Your task to perform on an android device: Is it going to rain tomorrow? Image 0: 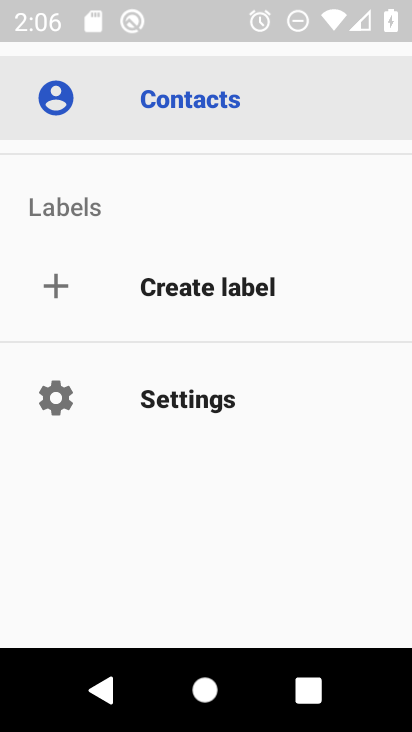
Step 0: press home button
Your task to perform on an android device: Is it going to rain tomorrow? Image 1: 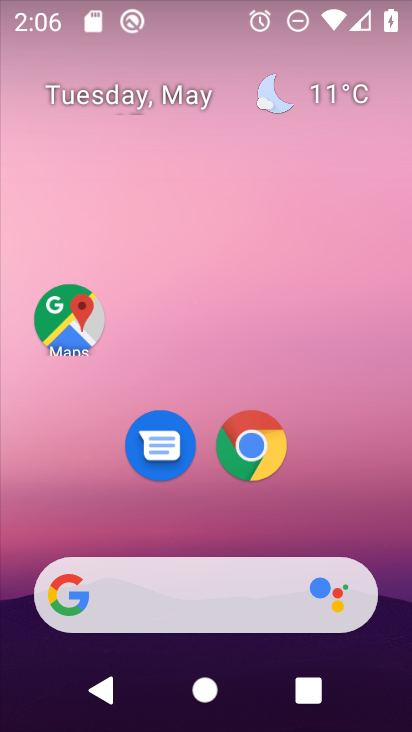
Step 1: click (335, 106)
Your task to perform on an android device: Is it going to rain tomorrow? Image 2: 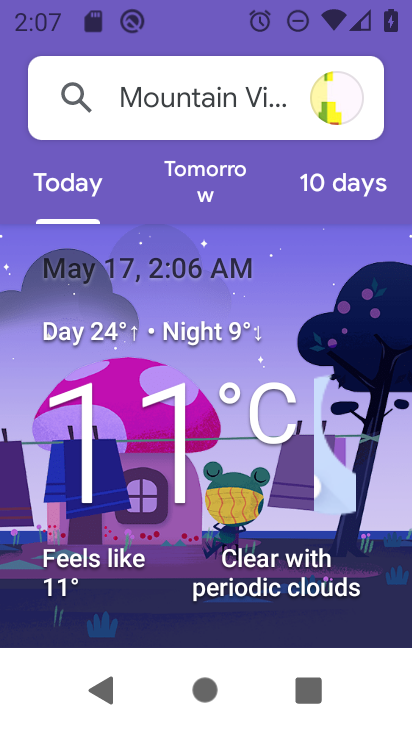
Step 2: click (209, 172)
Your task to perform on an android device: Is it going to rain tomorrow? Image 3: 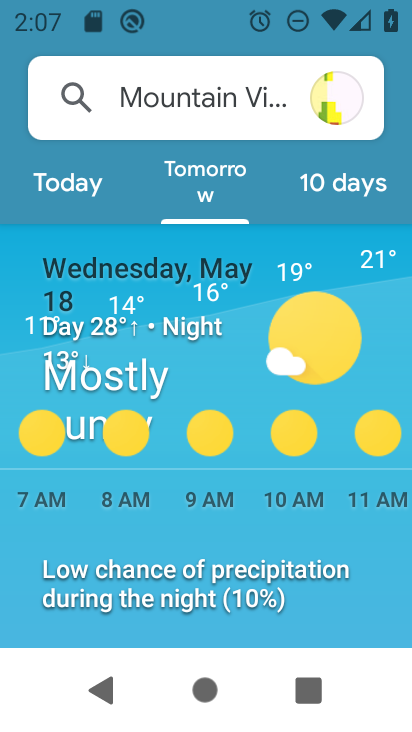
Step 3: task complete